Your task to perform on an android device: toggle data saver in the chrome app Image 0: 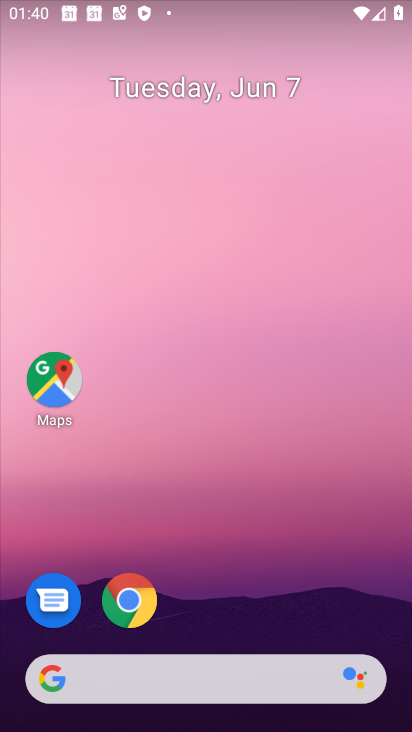
Step 0: click (134, 601)
Your task to perform on an android device: toggle data saver in the chrome app Image 1: 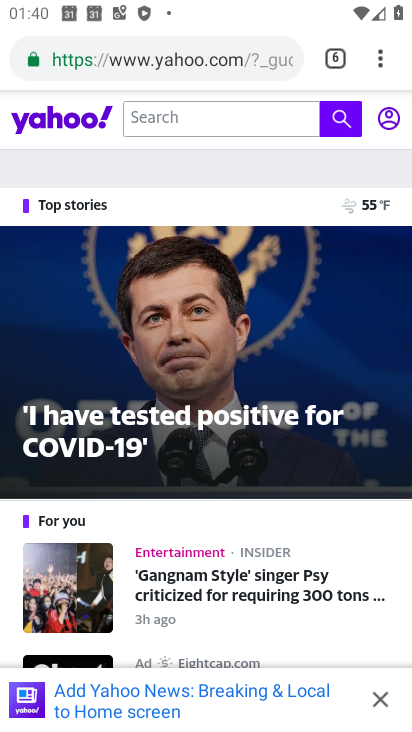
Step 1: click (381, 63)
Your task to perform on an android device: toggle data saver in the chrome app Image 2: 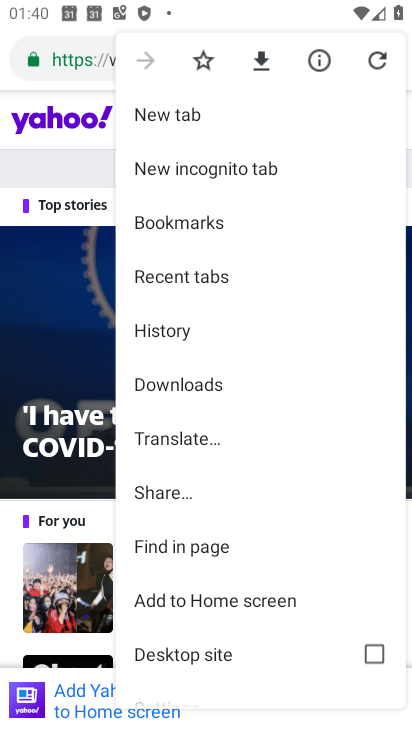
Step 2: drag from (200, 589) to (194, 320)
Your task to perform on an android device: toggle data saver in the chrome app Image 3: 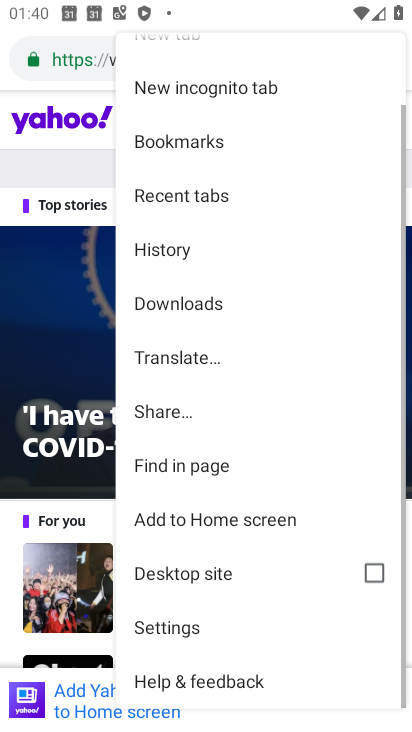
Step 3: click (154, 630)
Your task to perform on an android device: toggle data saver in the chrome app Image 4: 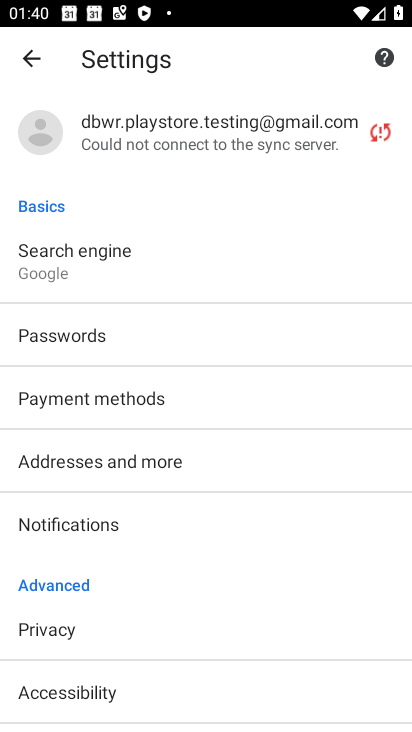
Step 4: drag from (114, 684) to (145, 207)
Your task to perform on an android device: toggle data saver in the chrome app Image 5: 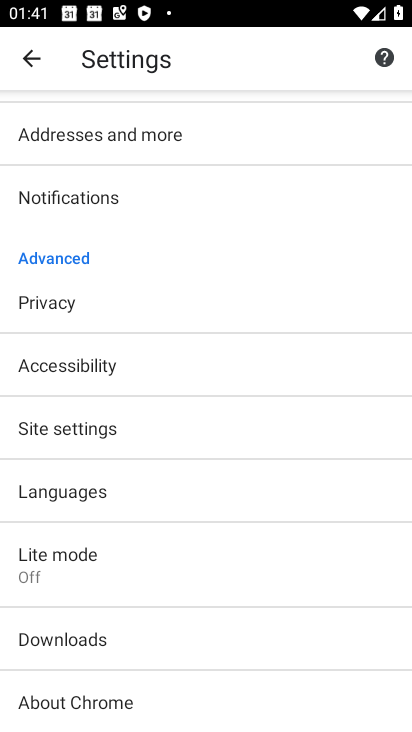
Step 5: click (47, 555)
Your task to perform on an android device: toggle data saver in the chrome app Image 6: 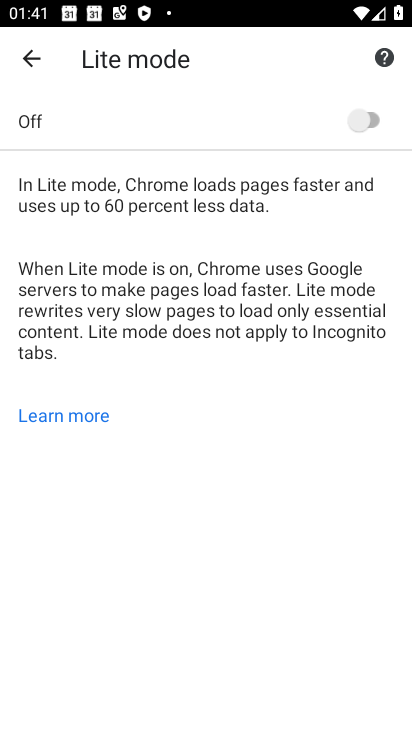
Step 6: click (371, 112)
Your task to perform on an android device: toggle data saver in the chrome app Image 7: 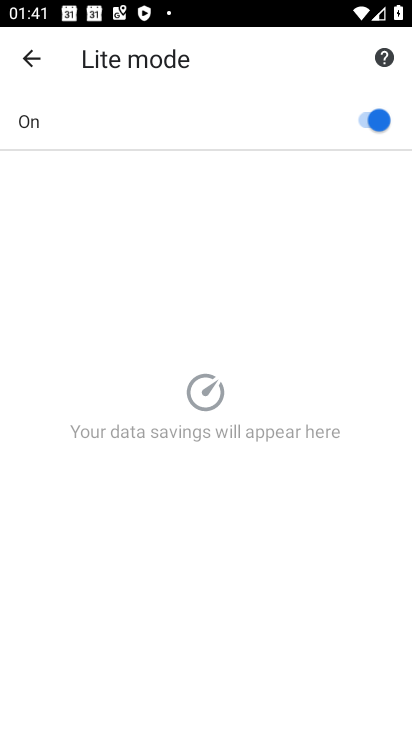
Step 7: task complete